Your task to perform on an android device: turn on improve location accuracy Image 0: 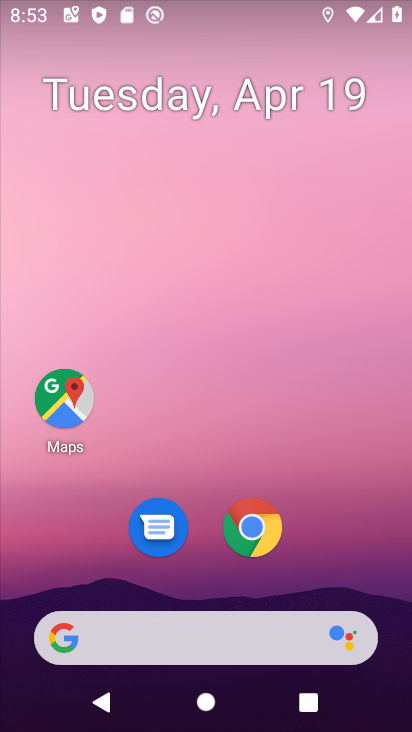
Step 0: drag from (313, 549) to (314, 100)
Your task to perform on an android device: turn on improve location accuracy Image 1: 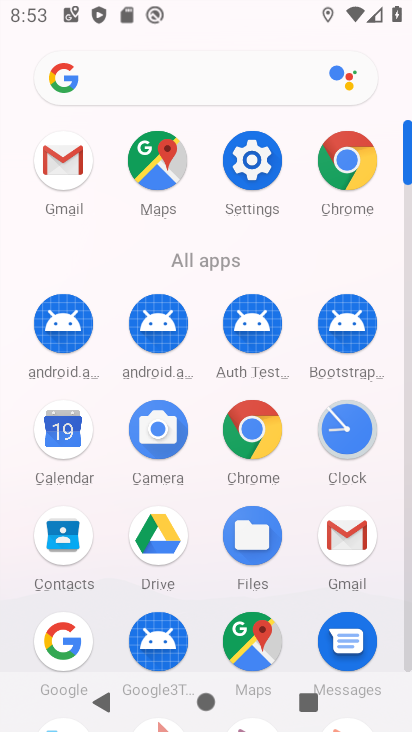
Step 1: click (248, 157)
Your task to perform on an android device: turn on improve location accuracy Image 2: 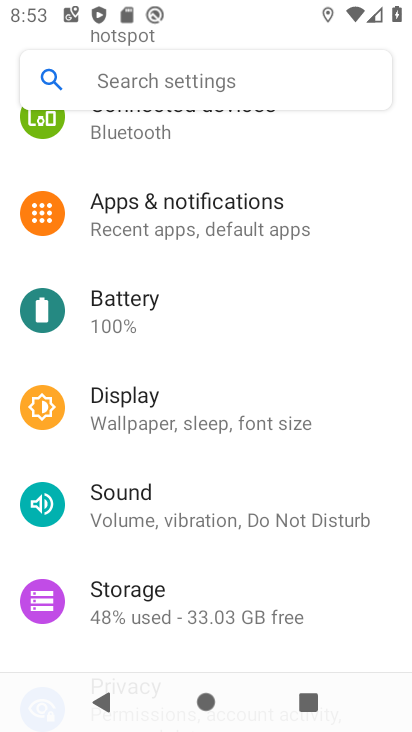
Step 2: drag from (254, 252) to (296, 170)
Your task to perform on an android device: turn on improve location accuracy Image 3: 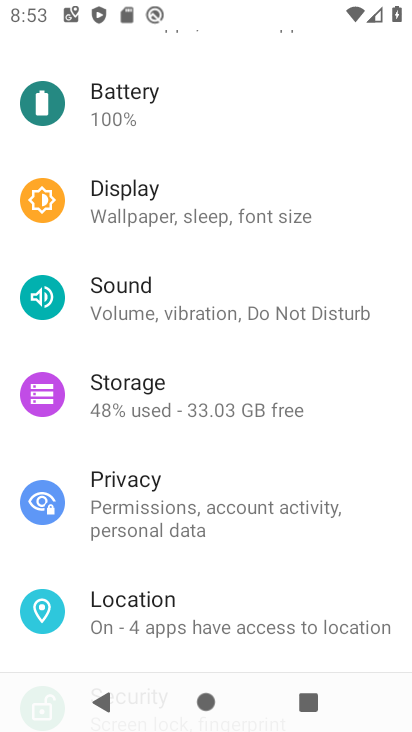
Step 3: drag from (238, 587) to (291, 169)
Your task to perform on an android device: turn on improve location accuracy Image 4: 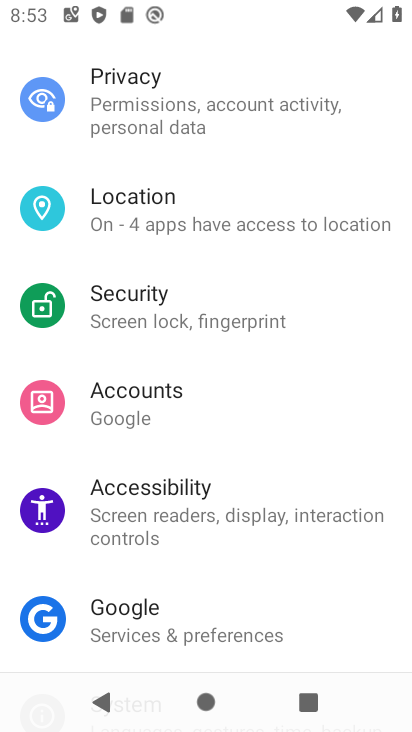
Step 4: click (213, 213)
Your task to perform on an android device: turn on improve location accuracy Image 5: 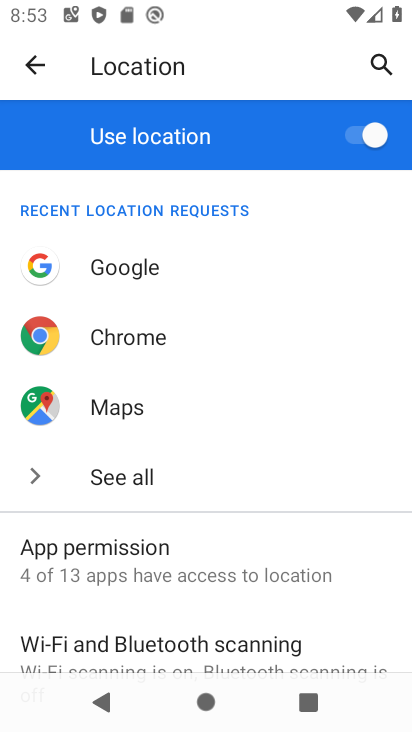
Step 5: drag from (271, 511) to (306, 176)
Your task to perform on an android device: turn on improve location accuracy Image 6: 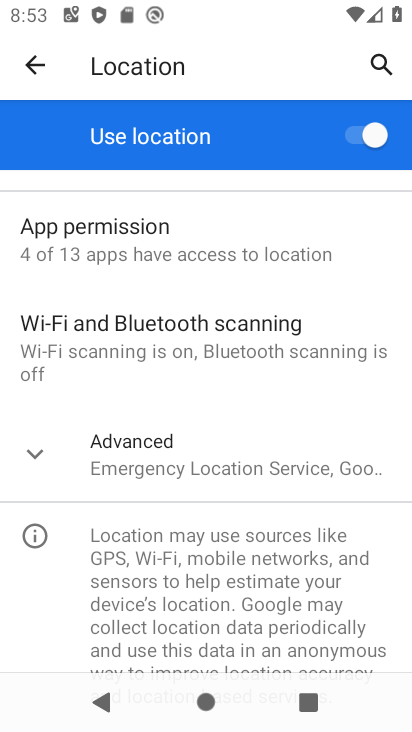
Step 6: click (237, 459)
Your task to perform on an android device: turn on improve location accuracy Image 7: 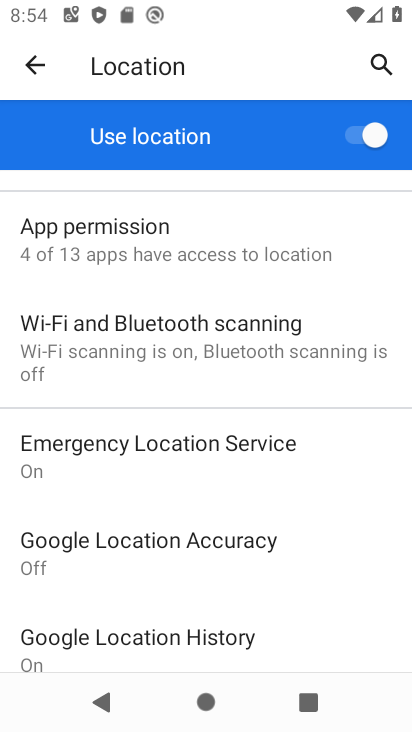
Step 7: drag from (201, 575) to (184, 488)
Your task to perform on an android device: turn on improve location accuracy Image 8: 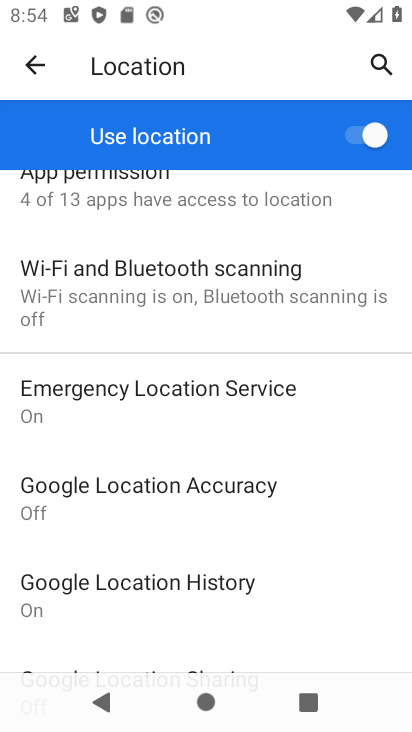
Step 8: click (183, 488)
Your task to perform on an android device: turn on improve location accuracy Image 9: 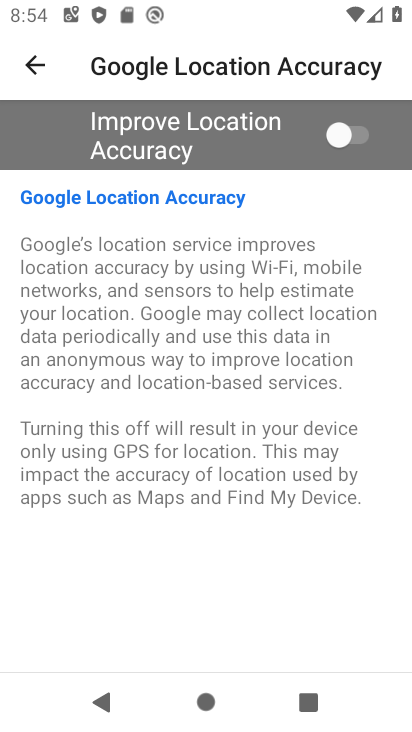
Step 9: click (351, 119)
Your task to perform on an android device: turn on improve location accuracy Image 10: 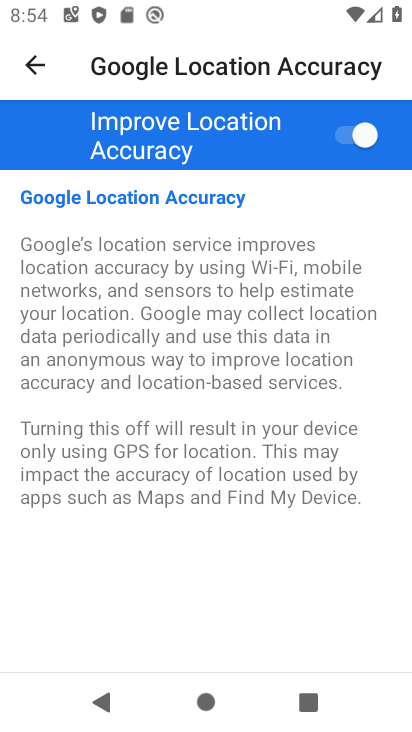
Step 10: task complete